Your task to perform on an android device: Empty the shopping cart on ebay. Add razer nari to the cart on ebay, then select checkout. Image 0: 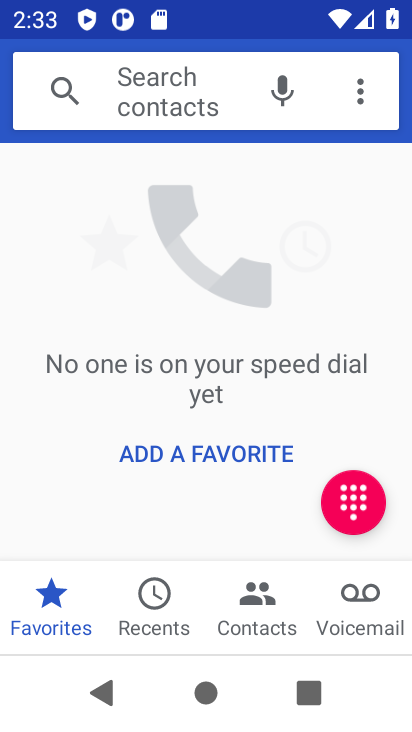
Step 0: press home button
Your task to perform on an android device: Empty the shopping cart on ebay. Add razer nari to the cart on ebay, then select checkout. Image 1: 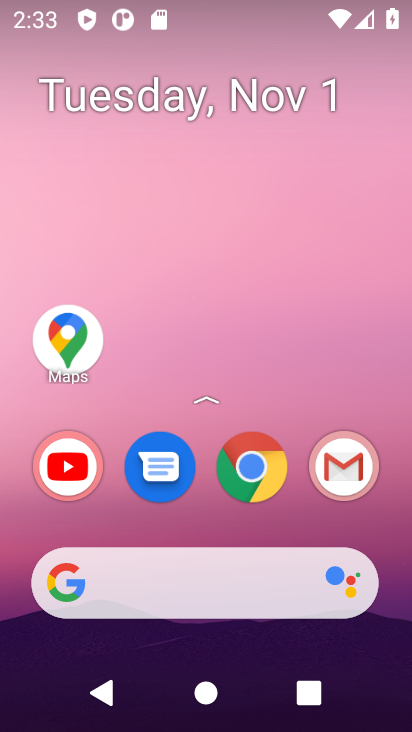
Step 1: click (244, 480)
Your task to perform on an android device: Empty the shopping cart on ebay. Add razer nari to the cart on ebay, then select checkout. Image 2: 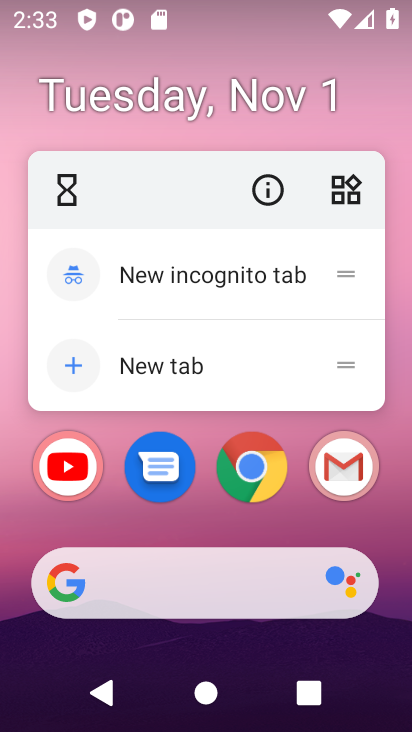
Step 2: click (256, 492)
Your task to perform on an android device: Empty the shopping cart on ebay. Add razer nari to the cart on ebay, then select checkout. Image 3: 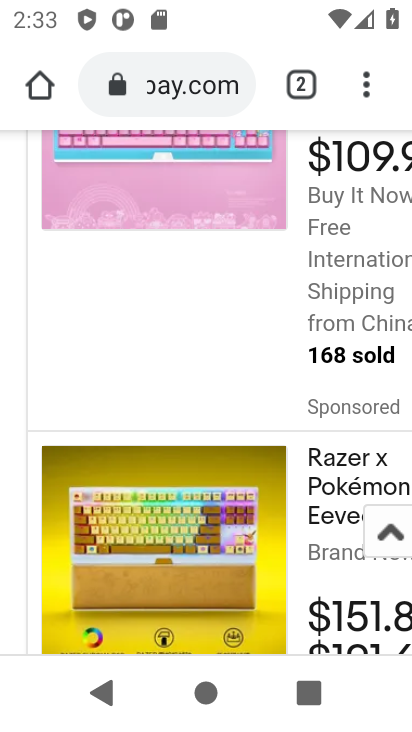
Step 3: click (200, 100)
Your task to perform on an android device: Empty the shopping cart on ebay. Add razer nari to the cart on ebay, then select checkout. Image 4: 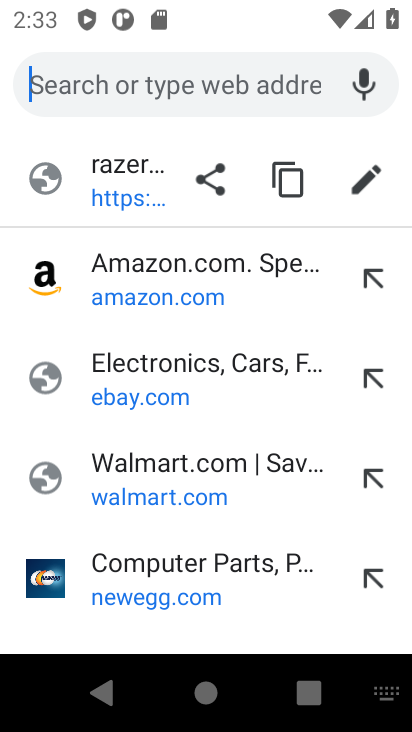
Step 4: type "ebay"
Your task to perform on an android device: Empty the shopping cart on ebay. Add razer nari to the cart on ebay, then select checkout. Image 5: 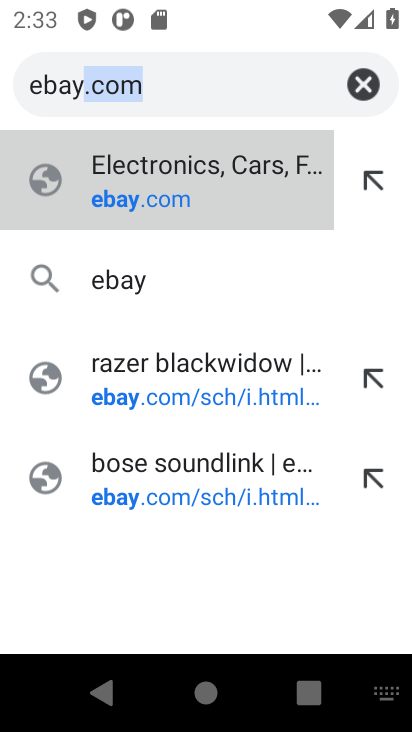
Step 5: type ""
Your task to perform on an android device: Empty the shopping cart on ebay. Add razer nari to the cart on ebay, then select checkout. Image 6: 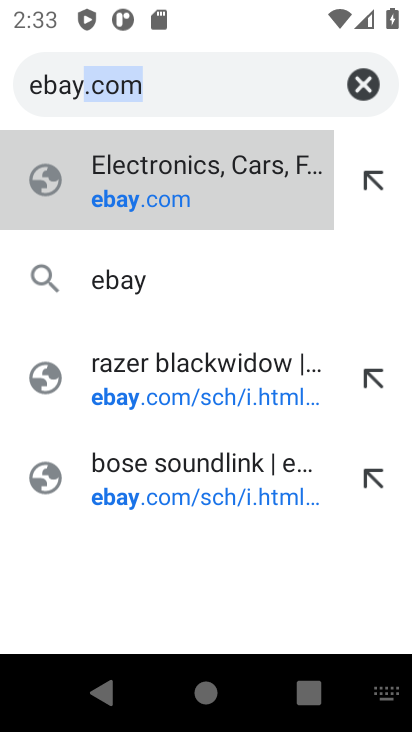
Step 6: press enter
Your task to perform on an android device: Empty the shopping cart on ebay. Add razer nari to the cart on ebay, then select checkout. Image 7: 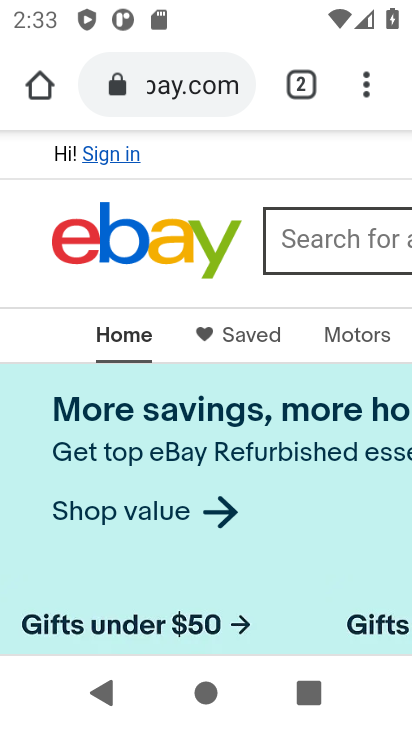
Step 7: drag from (381, 383) to (50, 410)
Your task to perform on an android device: Empty the shopping cart on ebay. Add razer nari to the cart on ebay, then select checkout. Image 8: 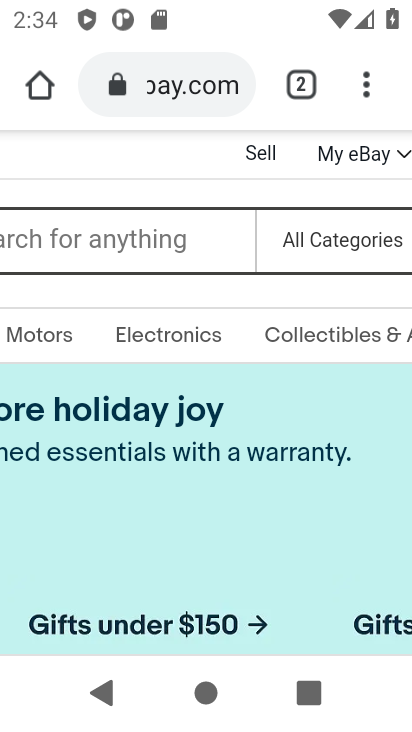
Step 8: drag from (349, 395) to (66, 402)
Your task to perform on an android device: Empty the shopping cart on ebay. Add razer nari to the cart on ebay, then select checkout. Image 9: 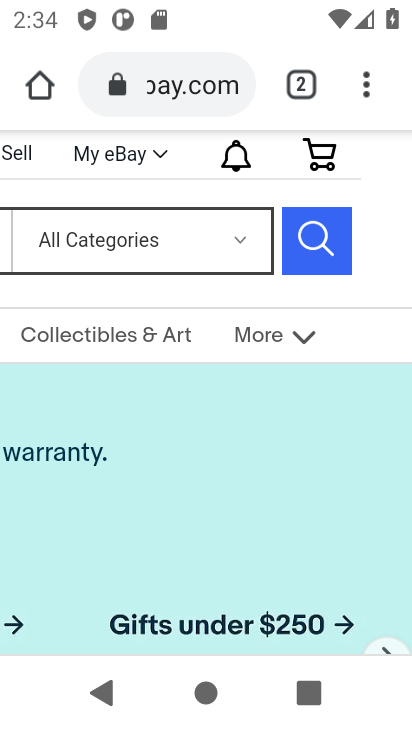
Step 9: click (310, 154)
Your task to perform on an android device: Empty the shopping cart on ebay. Add razer nari to the cart on ebay, then select checkout. Image 10: 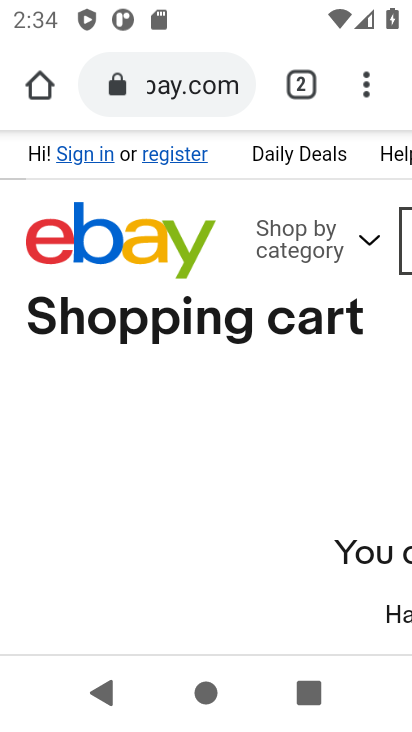
Step 10: drag from (312, 517) to (7, 501)
Your task to perform on an android device: Empty the shopping cart on ebay. Add razer nari to the cart on ebay, then select checkout. Image 11: 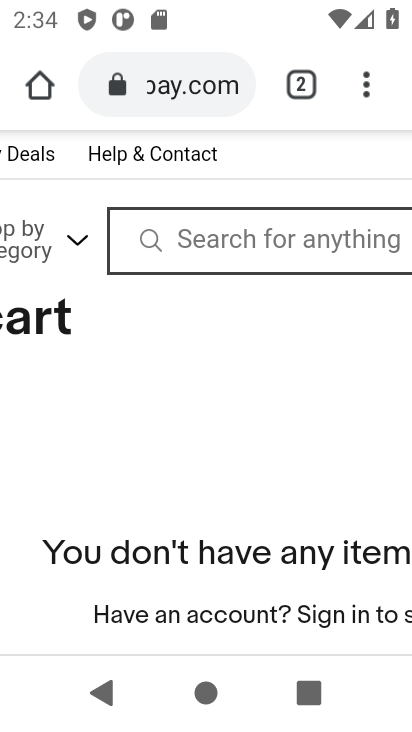
Step 11: click (283, 246)
Your task to perform on an android device: Empty the shopping cart on ebay. Add razer nari to the cart on ebay, then select checkout. Image 12: 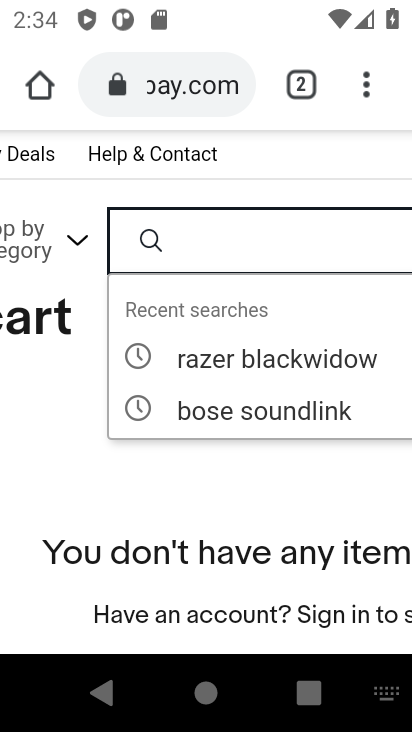
Step 12: type "razer nari"
Your task to perform on an android device: Empty the shopping cart on ebay. Add razer nari to the cart on ebay, then select checkout. Image 13: 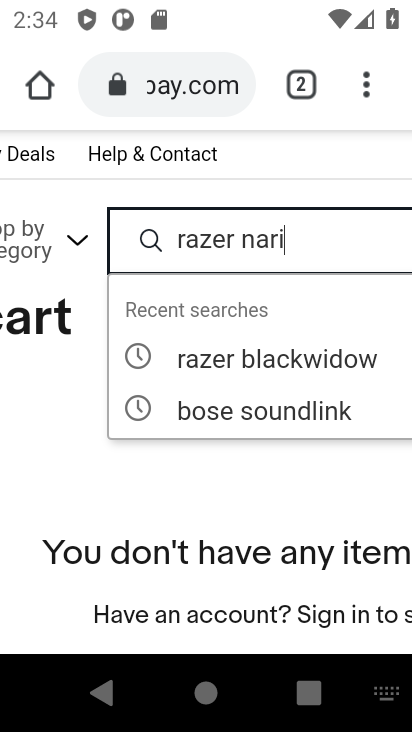
Step 13: type ""
Your task to perform on an android device: Empty the shopping cart on ebay. Add razer nari to the cart on ebay, then select checkout. Image 14: 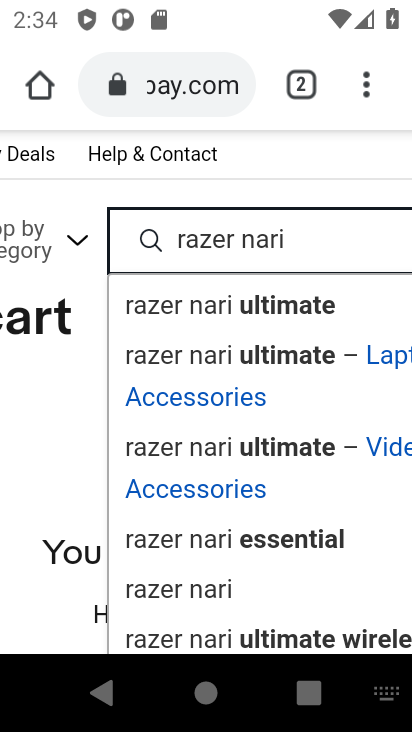
Step 14: press enter
Your task to perform on an android device: Empty the shopping cart on ebay. Add razer nari to the cart on ebay, then select checkout. Image 15: 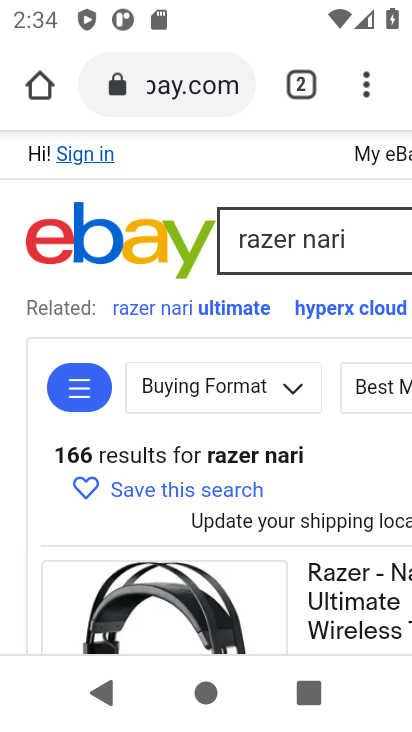
Step 15: press enter
Your task to perform on an android device: Empty the shopping cart on ebay. Add razer nari to the cart on ebay, then select checkout. Image 16: 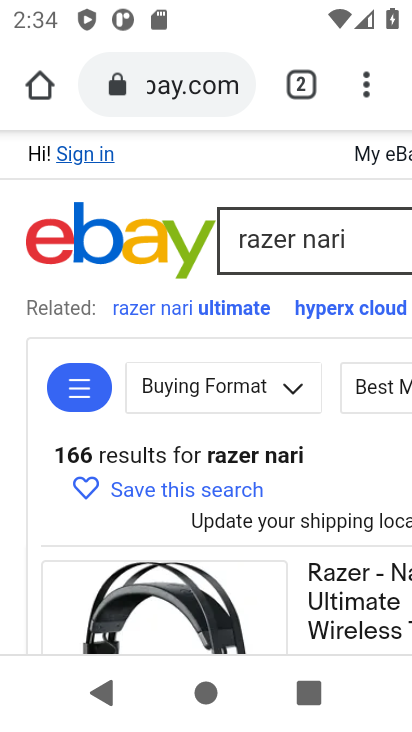
Step 16: click (337, 594)
Your task to perform on an android device: Empty the shopping cart on ebay. Add razer nari to the cart on ebay, then select checkout. Image 17: 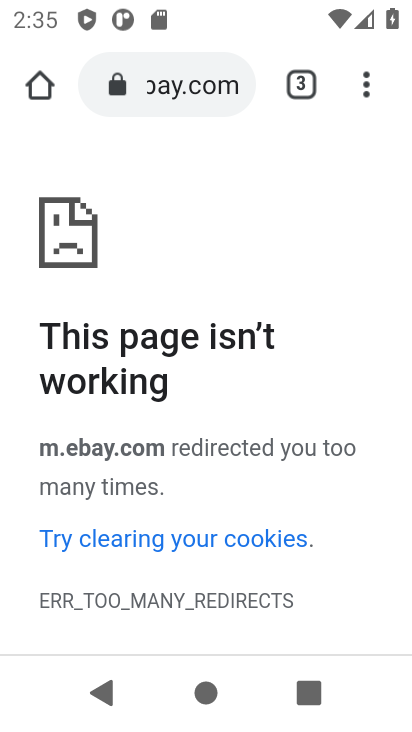
Step 17: task complete